Your task to perform on an android device: change the clock display to digital Image 0: 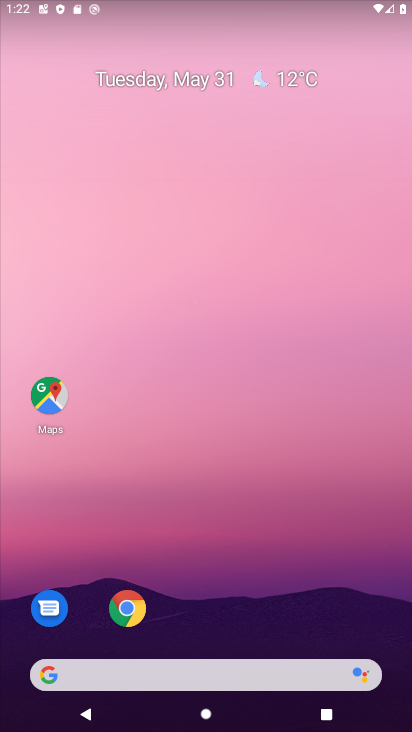
Step 0: drag from (238, 525) to (245, 294)
Your task to perform on an android device: change the clock display to digital Image 1: 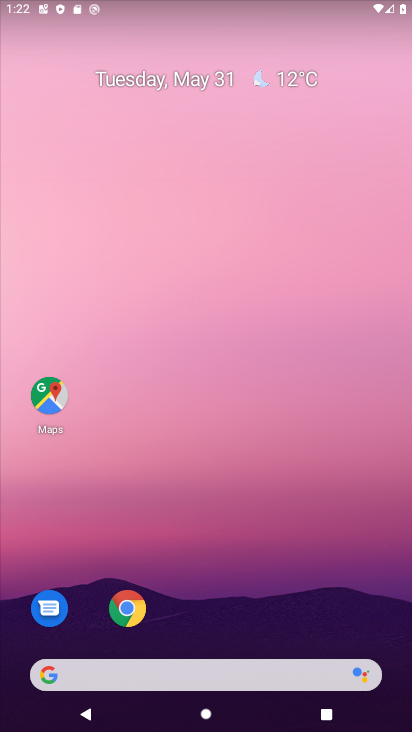
Step 1: drag from (289, 562) to (271, 248)
Your task to perform on an android device: change the clock display to digital Image 2: 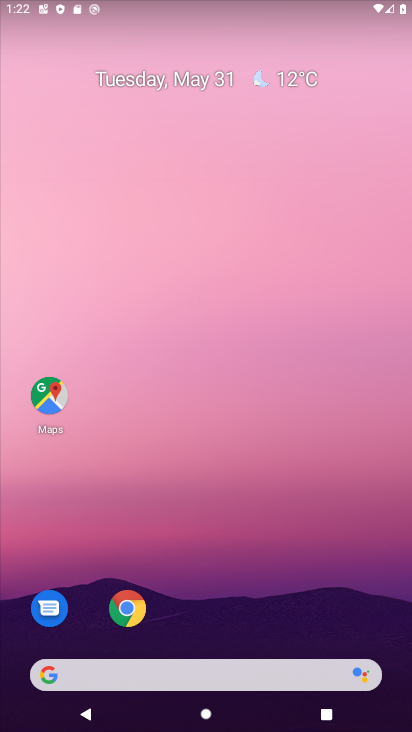
Step 2: drag from (295, 596) to (295, 136)
Your task to perform on an android device: change the clock display to digital Image 3: 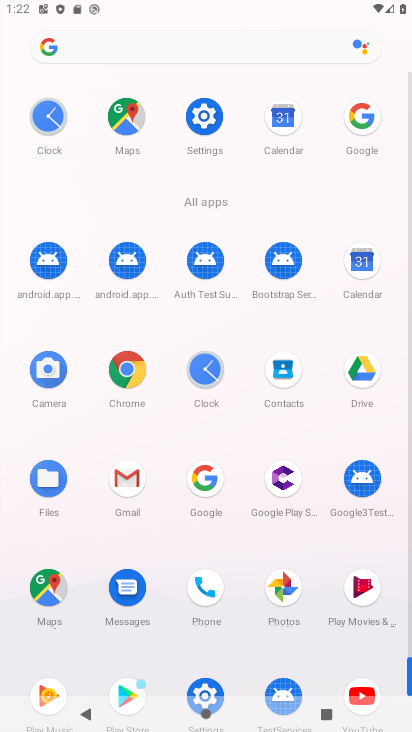
Step 3: click (206, 364)
Your task to perform on an android device: change the clock display to digital Image 4: 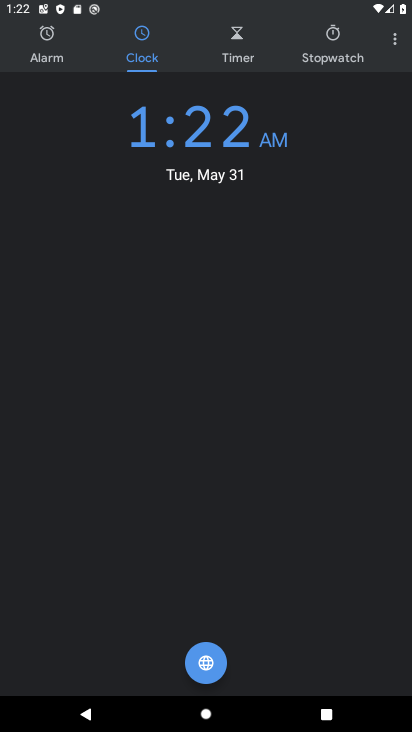
Step 4: click (402, 45)
Your task to perform on an android device: change the clock display to digital Image 5: 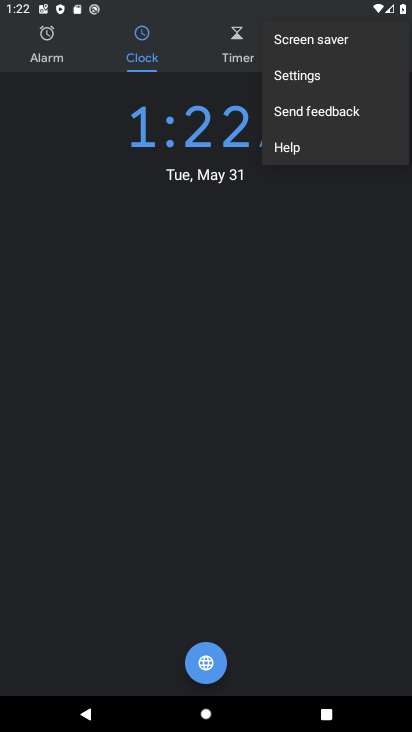
Step 5: click (318, 64)
Your task to perform on an android device: change the clock display to digital Image 6: 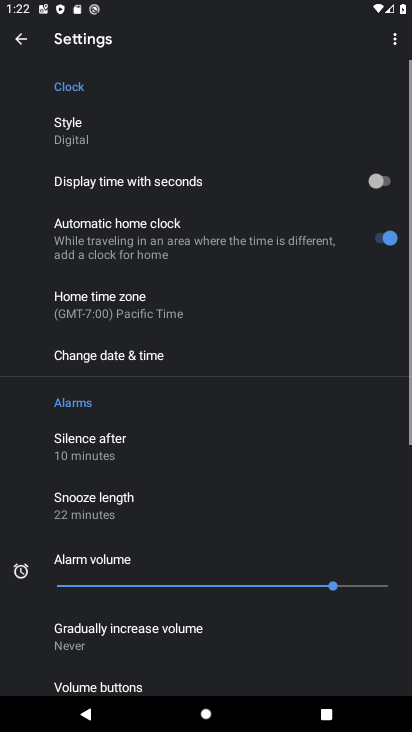
Step 6: click (132, 129)
Your task to perform on an android device: change the clock display to digital Image 7: 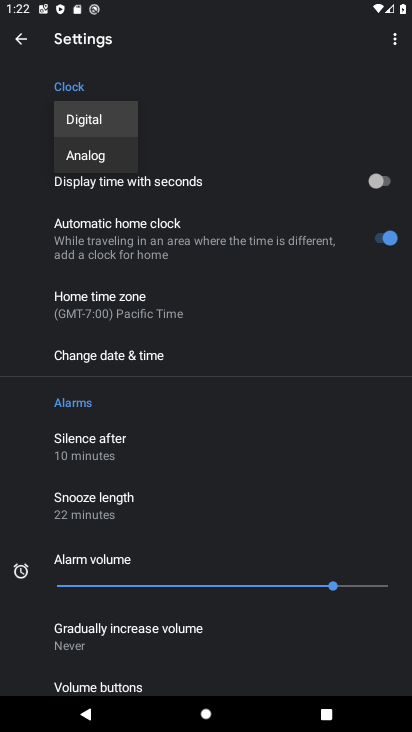
Step 7: task complete